Your task to perform on an android device: install app "Yahoo Mail" Image 0: 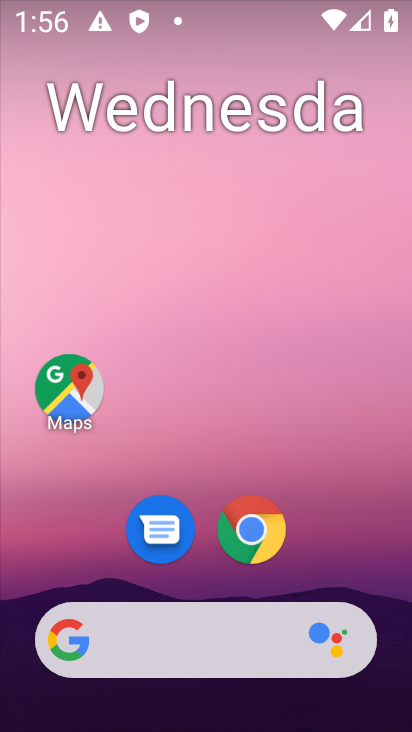
Step 0: drag from (241, 646) to (155, 83)
Your task to perform on an android device: install app "Yahoo Mail" Image 1: 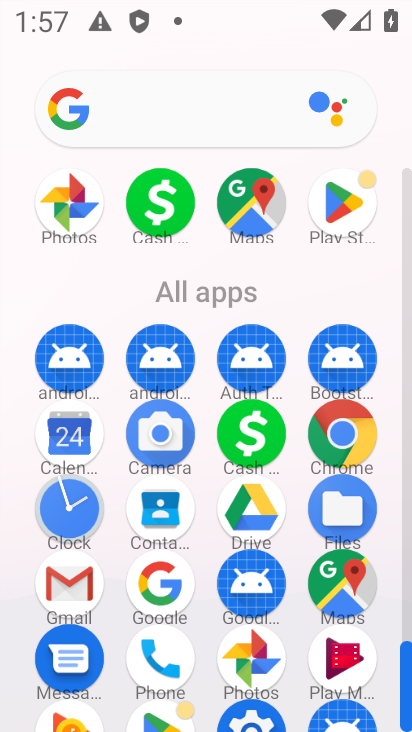
Step 1: click (347, 217)
Your task to perform on an android device: install app "Yahoo Mail" Image 2: 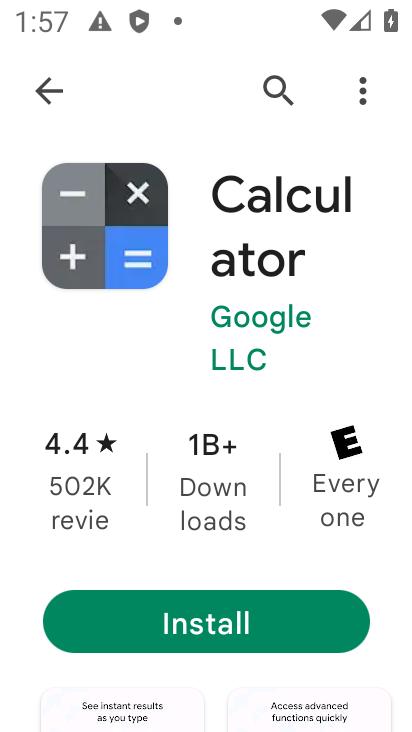
Step 2: click (274, 91)
Your task to perform on an android device: install app "Yahoo Mail" Image 3: 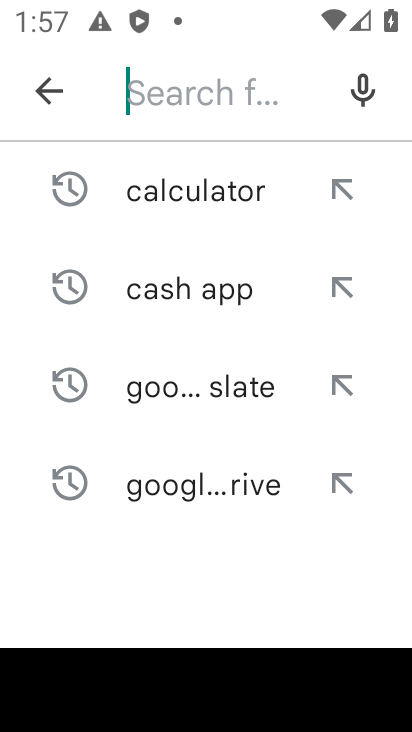
Step 3: type "yahoo mail"
Your task to perform on an android device: install app "Yahoo Mail" Image 4: 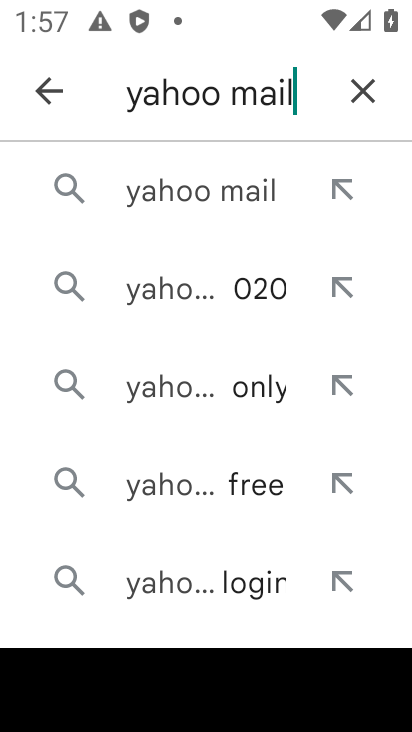
Step 4: click (211, 189)
Your task to perform on an android device: install app "Yahoo Mail" Image 5: 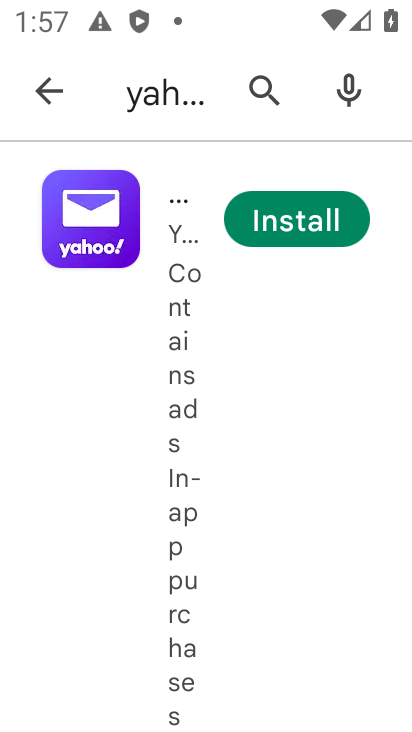
Step 5: click (298, 227)
Your task to perform on an android device: install app "Yahoo Mail" Image 6: 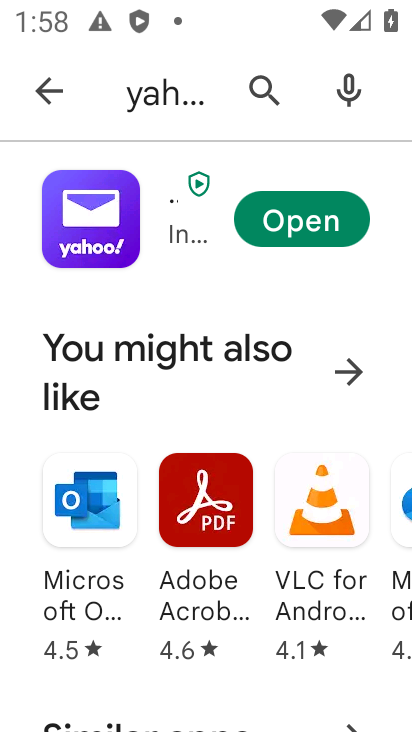
Step 6: task complete